Your task to perform on an android device: Set the phone to "Do not disturb". Image 0: 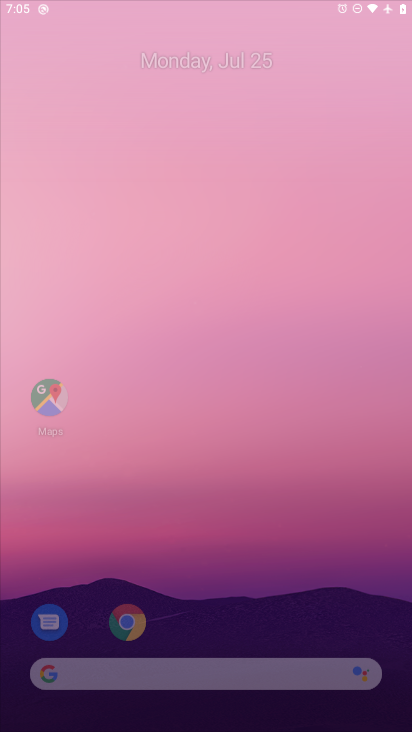
Step 0: press home button
Your task to perform on an android device: Set the phone to "Do not disturb". Image 1: 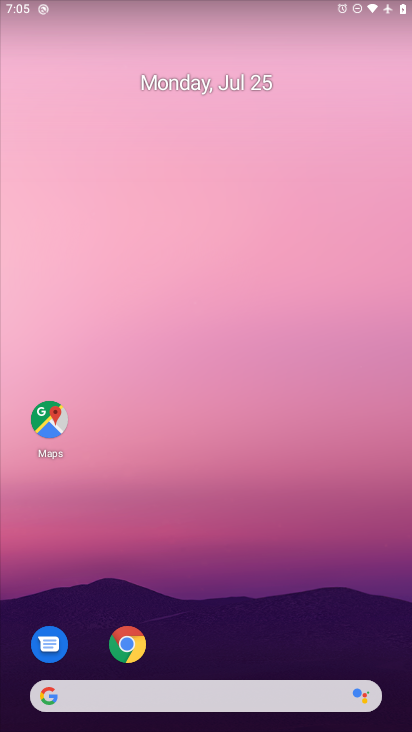
Step 1: task complete